Your task to perform on an android device: Open location settings Image 0: 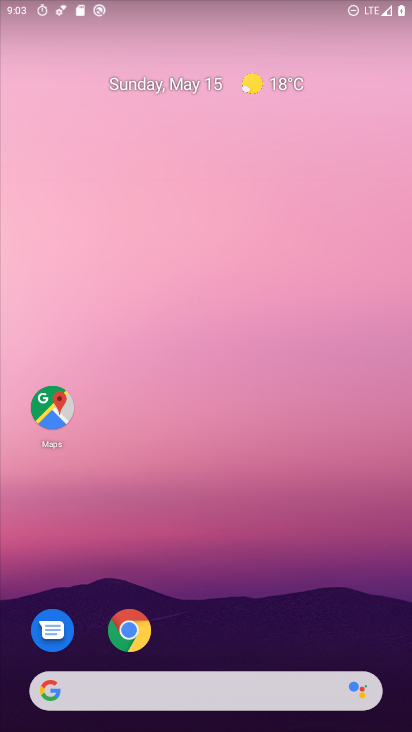
Step 0: click (269, 254)
Your task to perform on an android device: Open location settings Image 1: 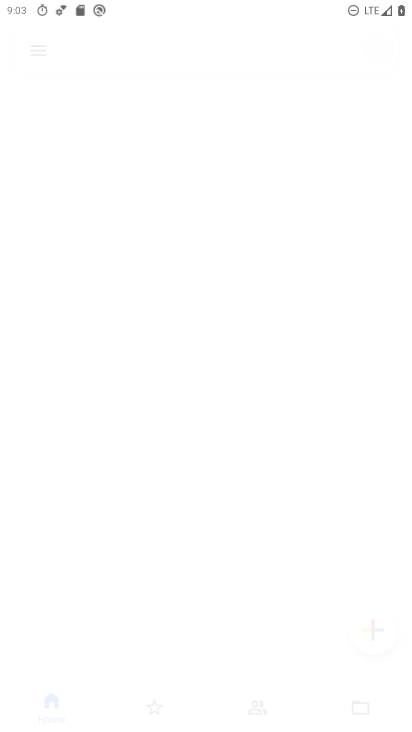
Step 1: drag from (180, 661) to (145, 124)
Your task to perform on an android device: Open location settings Image 2: 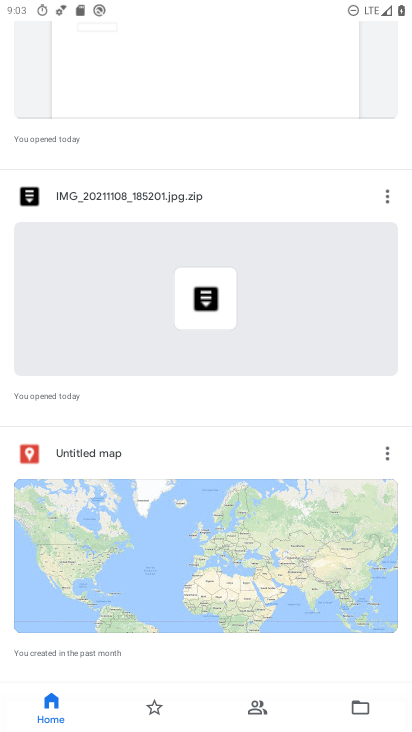
Step 2: press home button
Your task to perform on an android device: Open location settings Image 3: 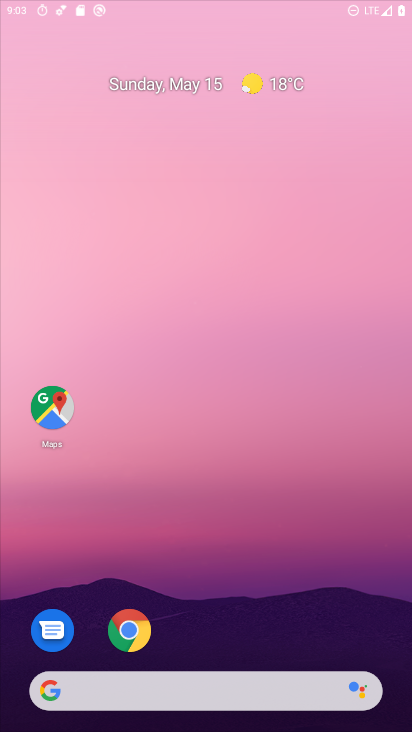
Step 3: drag from (179, 630) to (186, 469)
Your task to perform on an android device: Open location settings Image 4: 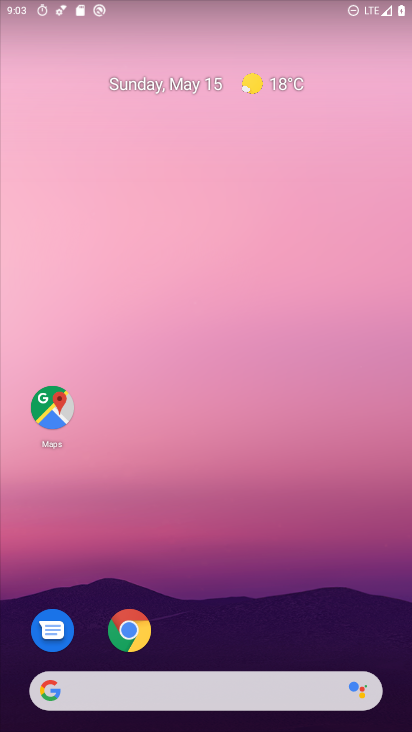
Step 4: drag from (179, 651) to (213, 22)
Your task to perform on an android device: Open location settings Image 5: 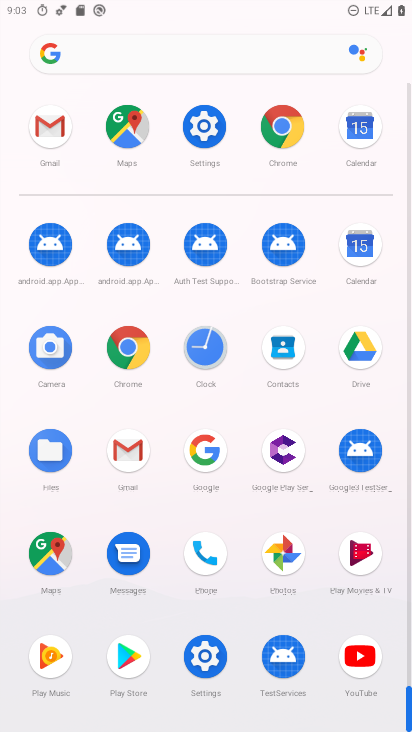
Step 5: click (200, 135)
Your task to perform on an android device: Open location settings Image 6: 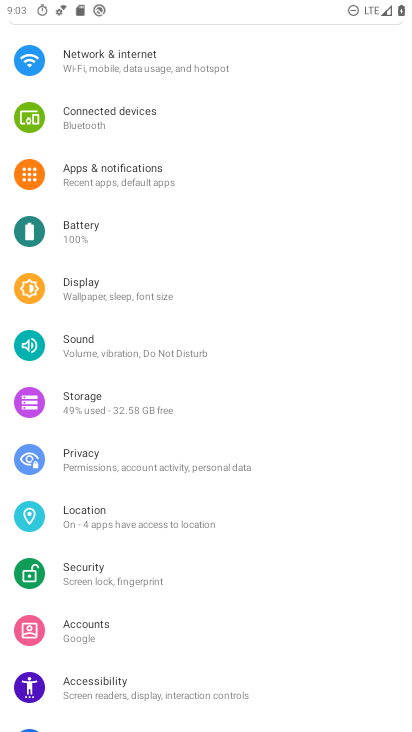
Step 6: click (82, 520)
Your task to perform on an android device: Open location settings Image 7: 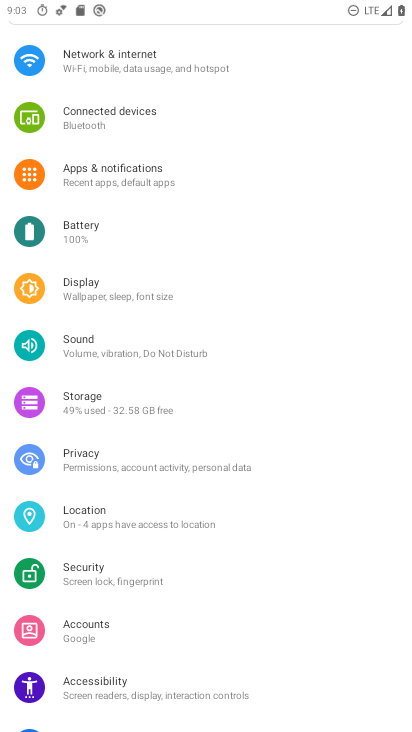
Step 7: click (82, 520)
Your task to perform on an android device: Open location settings Image 8: 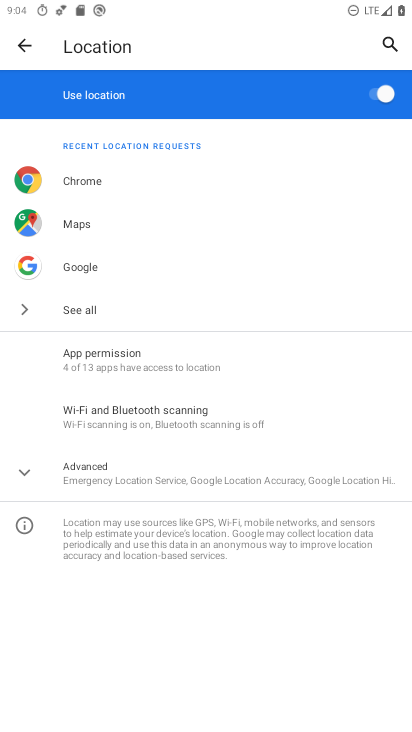
Step 8: click (96, 475)
Your task to perform on an android device: Open location settings Image 9: 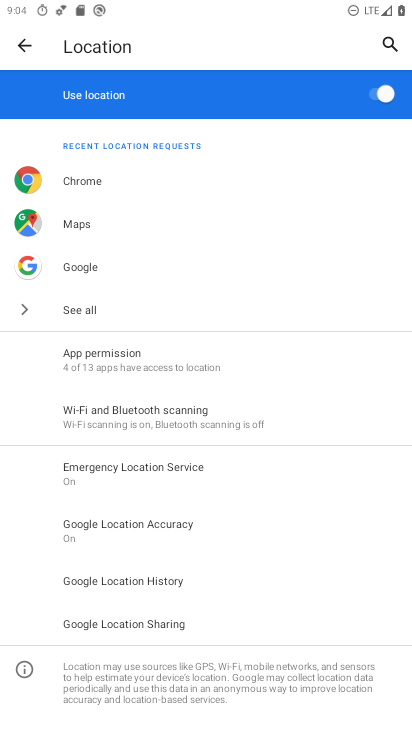
Step 9: task complete